Your task to perform on an android device: Go to settings Image 0: 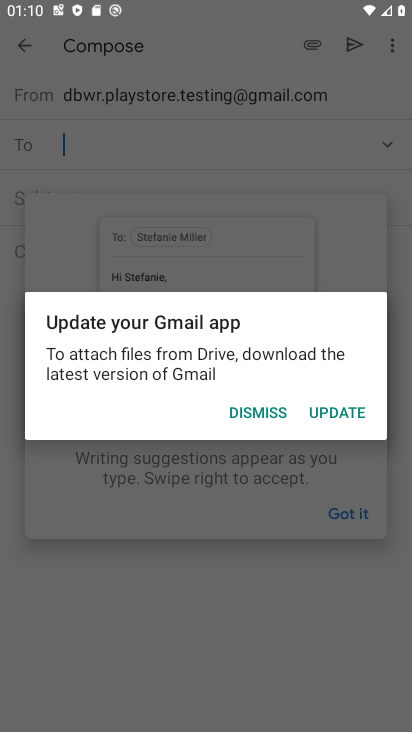
Step 0: press home button
Your task to perform on an android device: Go to settings Image 1: 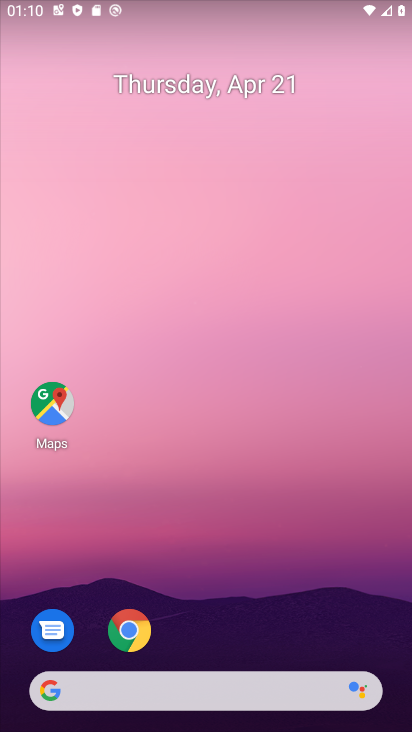
Step 1: drag from (215, 647) to (215, 393)
Your task to perform on an android device: Go to settings Image 2: 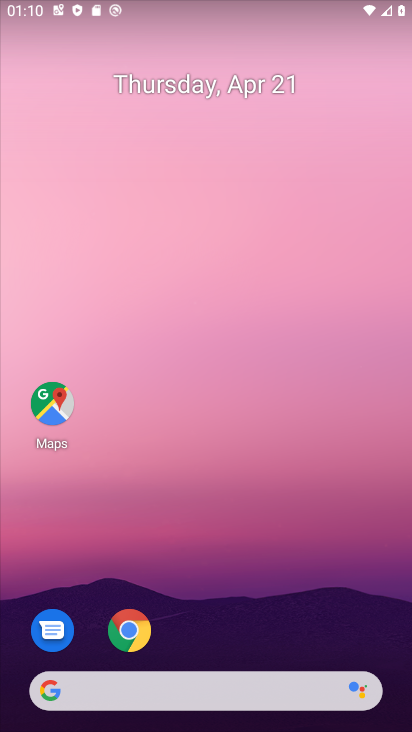
Step 2: drag from (223, 602) to (181, 150)
Your task to perform on an android device: Go to settings Image 3: 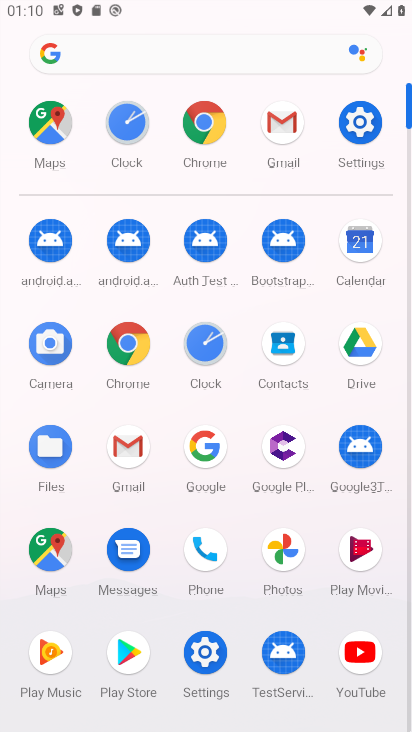
Step 3: click (357, 120)
Your task to perform on an android device: Go to settings Image 4: 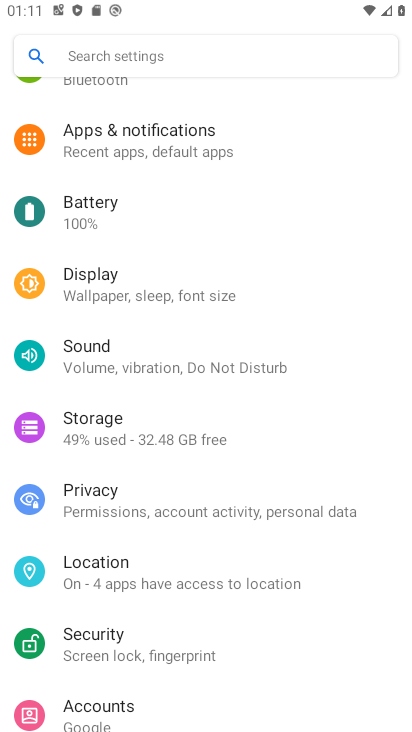
Step 4: task complete